Your task to perform on an android device: empty trash in the gmail app Image 0: 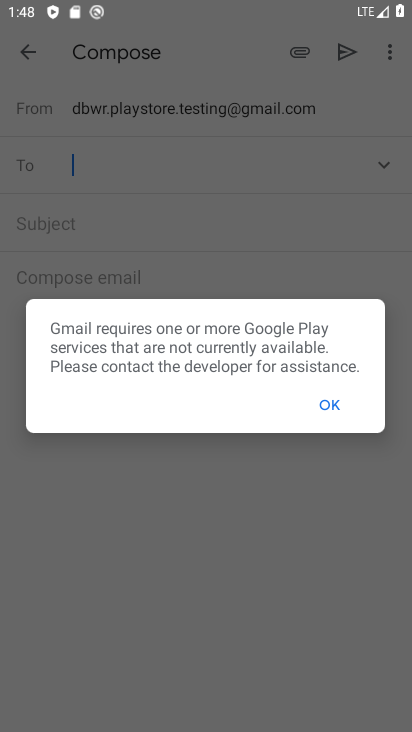
Step 0: drag from (226, 591) to (233, 438)
Your task to perform on an android device: empty trash in the gmail app Image 1: 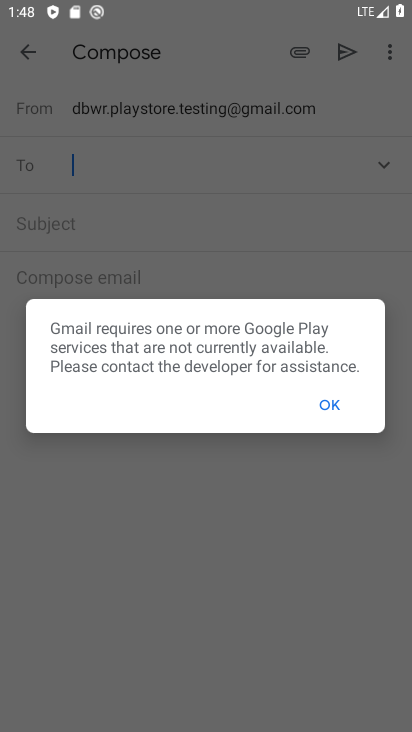
Step 1: press home button
Your task to perform on an android device: empty trash in the gmail app Image 2: 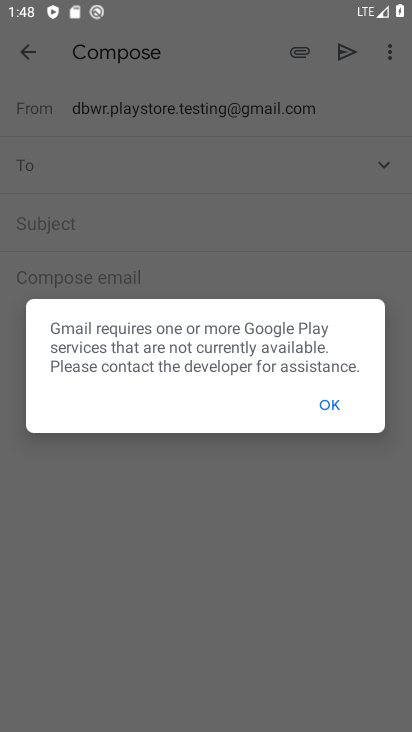
Step 2: drag from (268, 638) to (329, 89)
Your task to perform on an android device: empty trash in the gmail app Image 3: 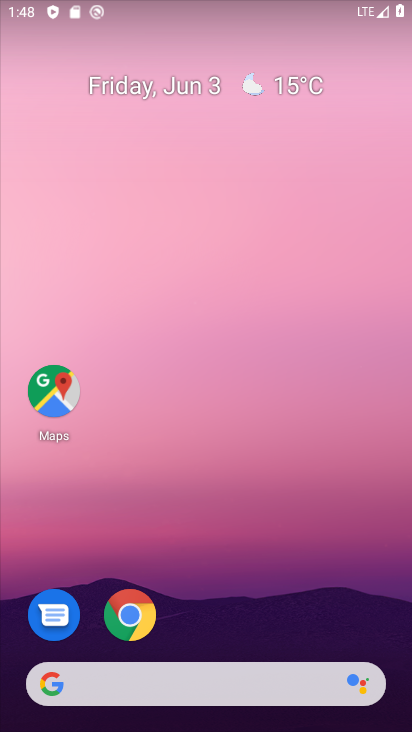
Step 3: drag from (204, 585) to (249, 17)
Your task to perform on an android device: empty trash in the gmail app Image 4: 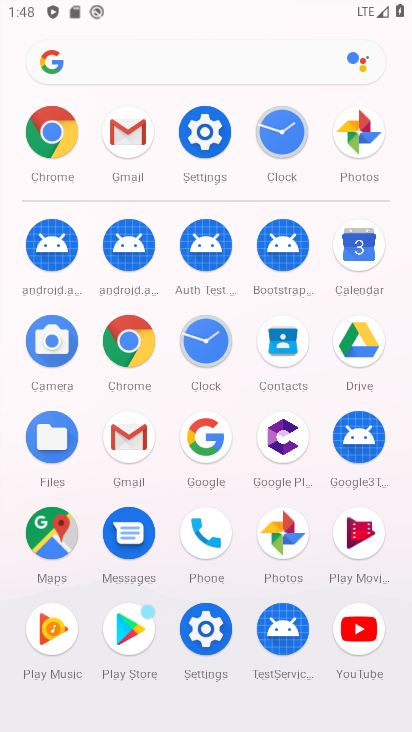
Step 4: click (129, 423)
Your task to perform on an android device: empty trash in the gmail app Image 5: 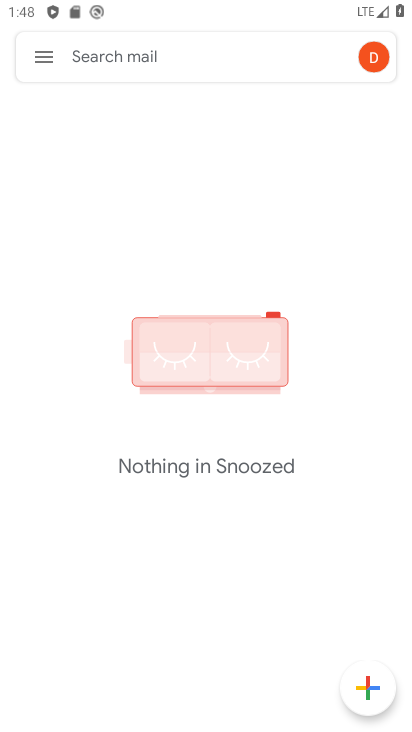
Step 5: drag from (282, 533) to (264, 223)
Your task to perform on an android device: empty trash in the gmail app Image 6: 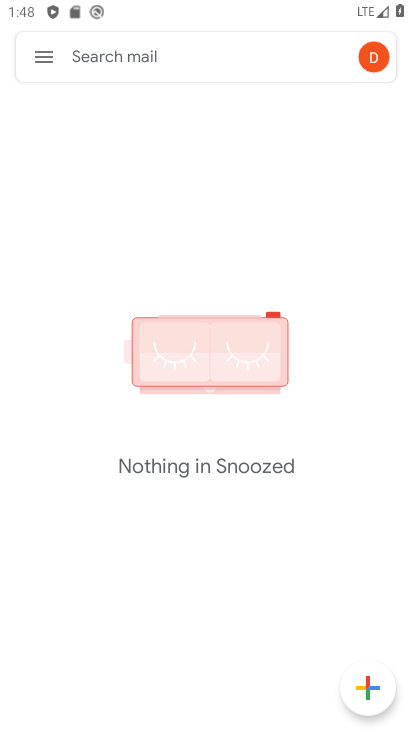
Step 6: click (44, 70)
Your task to perform on an android device: empty trash in the gmail app Image 7: 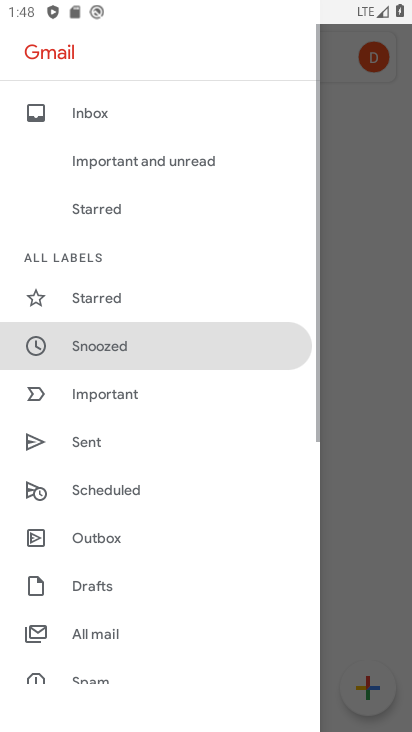
Step 7: drag from (148, 635) to (233, 146)
Your task to perform on an android device: empty trash in the gmail app Image 8: 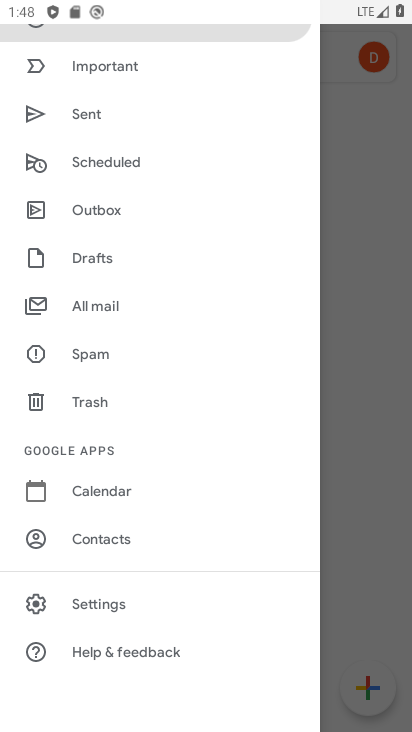
Step 8: click (93, 400)
Your task to perform on an android device: empty trash in the gmail app Image 9: 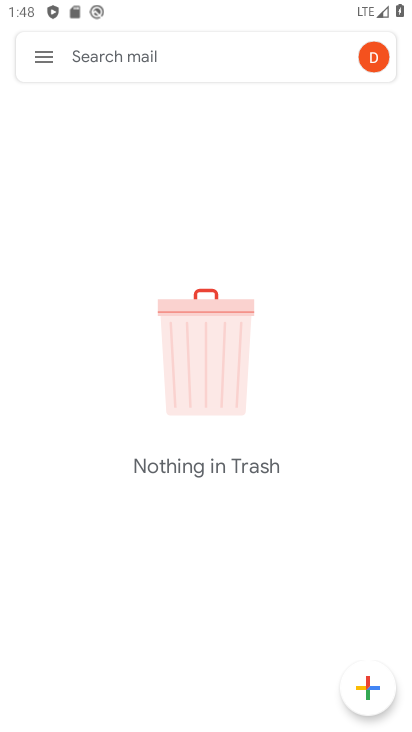
Step 9: drag from (160, 494) to (225, 179)
Your task to perform on an android device: empty trash in the gmail app Image 10: 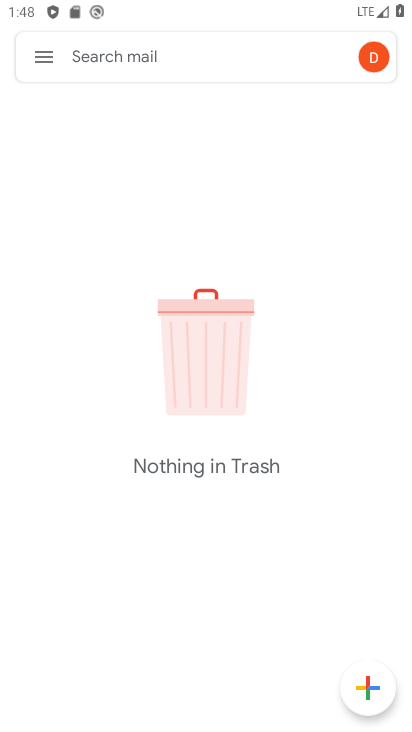
Step 10: click (47, 75)
Your task to perform on an android device: empty trash in the gmail app Image 11: 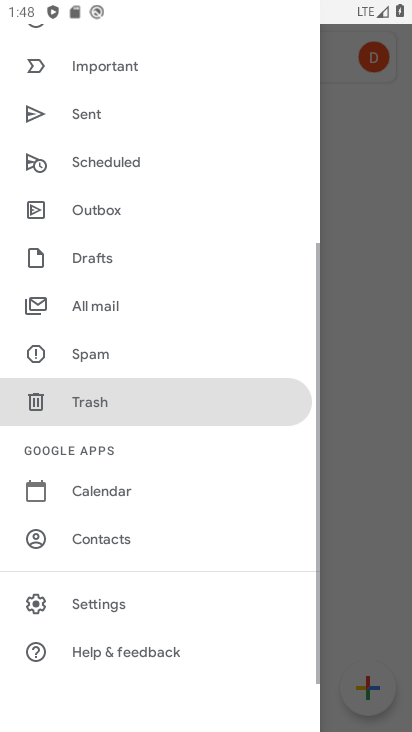
Step 11: click (116, 393)
Your task to perform on an android device: empty trash in the gmail app Image 12: 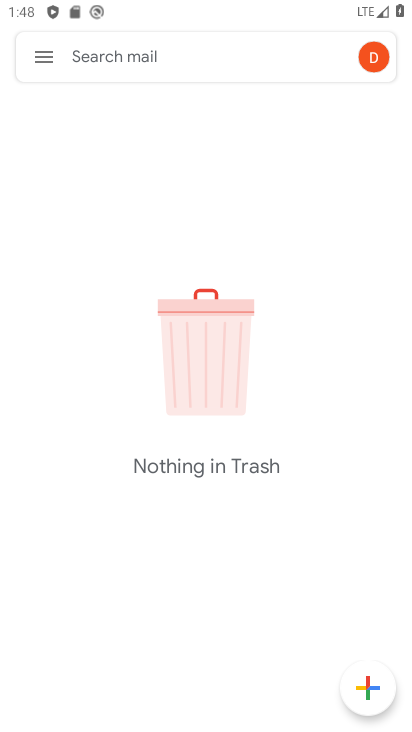
Step 12: task complete